Your task to perform on an android device: Open the web browser Image 0: 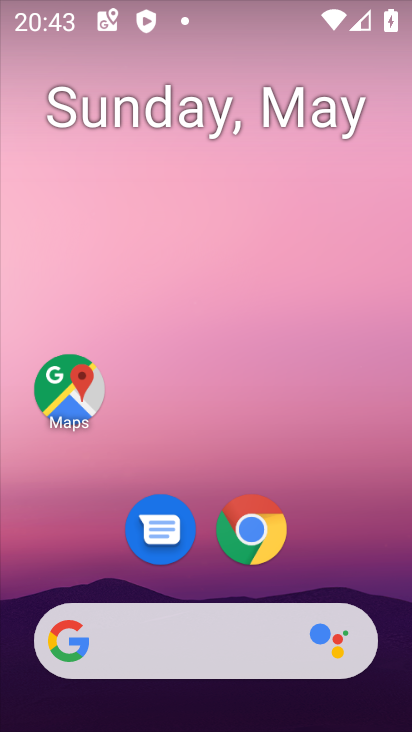
Step 0: click (255, 545)
Your task to perform on an android device: Open the web browser Image 1: 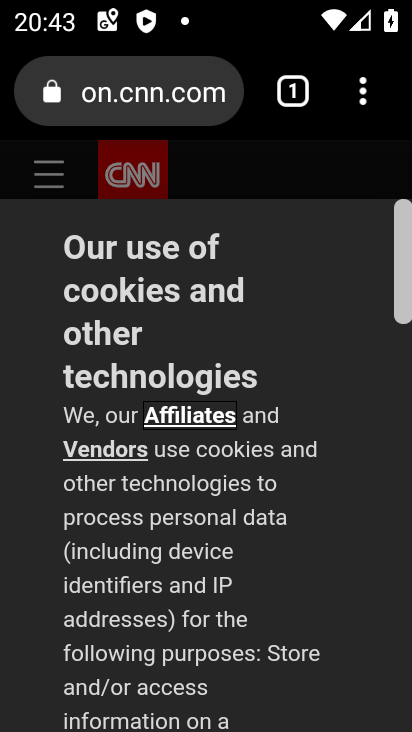
Step 1: task complete